Your task to perform on an android device: Show me productivity apps on the Play Store Image 0: 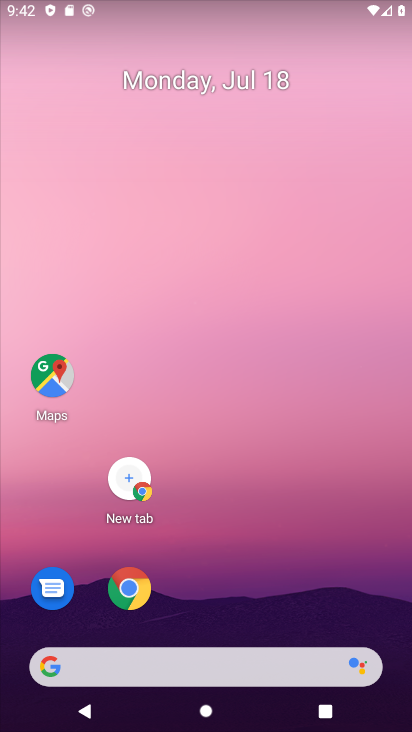
Step 0: drag from (220, 596) to (210, 2)
Your task to perform on an android device: Show me productivity apps on the Play Store Image 1: 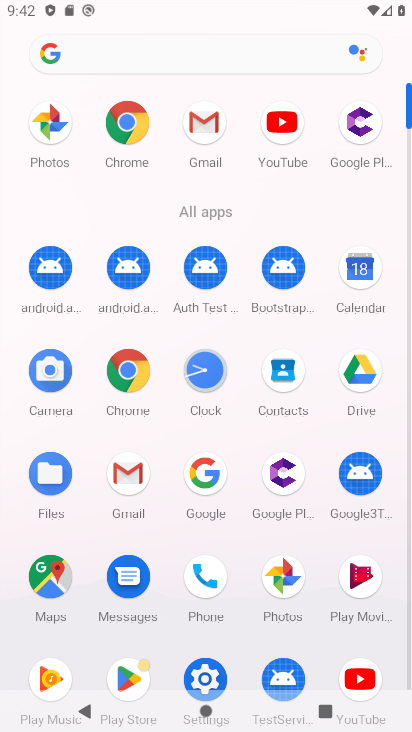
Step 1: click (135, 667)
Your task to perform on an android device: Show me productivity apps on the Play Store Image 2: 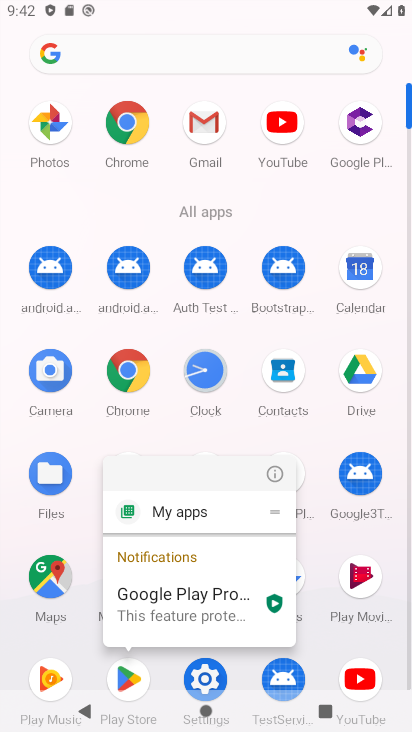
Step 2: click (132, 670)
Your task to perform on an android device: Show me productivity apps on the Play Store Image 3: 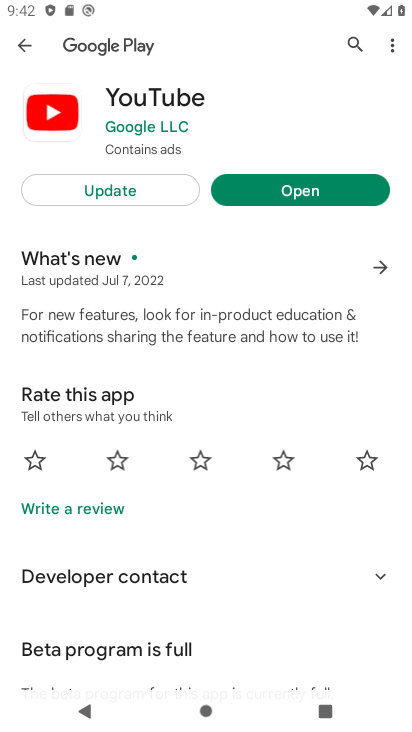
Step 3: click (25, 57)
Your task to perform on an android device: Show me productivity apps on the Play Store Image 4: 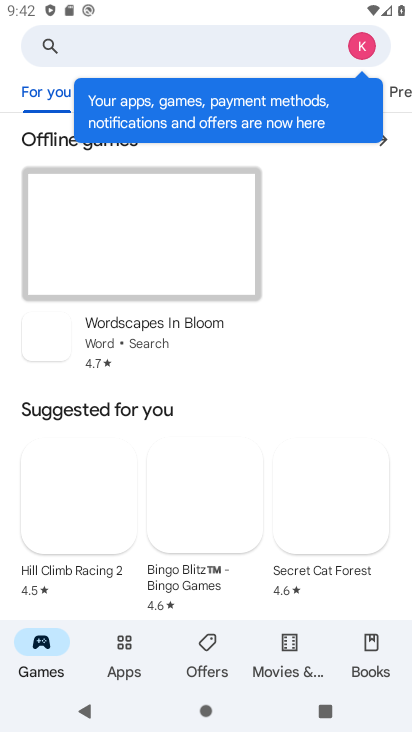
Step 4: click (126, 658)
Your task to perform on an android device: Show me productivity apps on the Play Store Image 5: 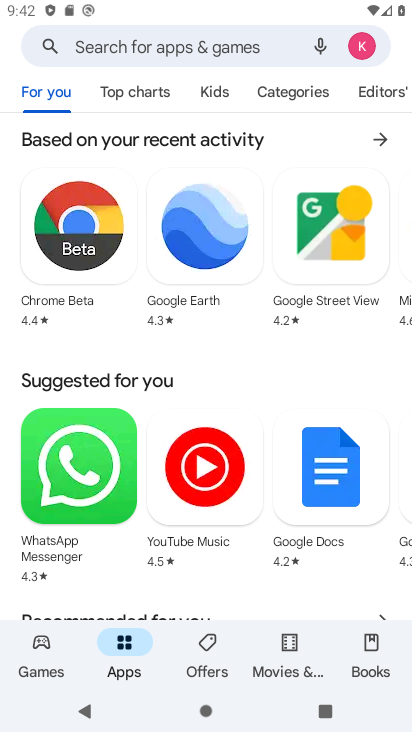
Step 5: click (285, 100)
Your task to perform on an android device: Show me productivity apps on the Play Store Image 6: 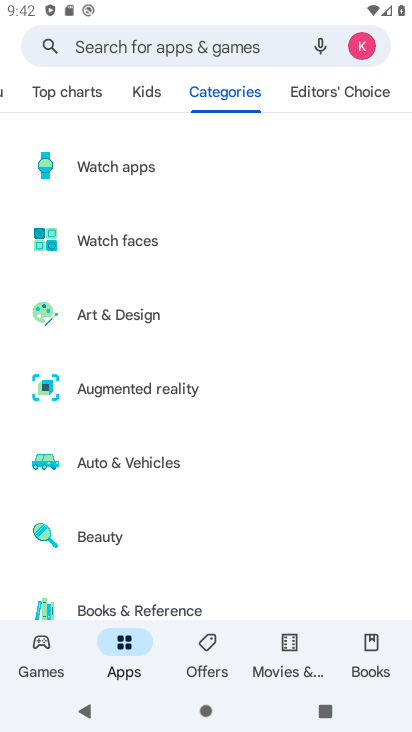
Step 6: drag from (205, 546) to (228, 68)
Your task to perform on an android device: Show me productivity apps on the Play Store Image 7: 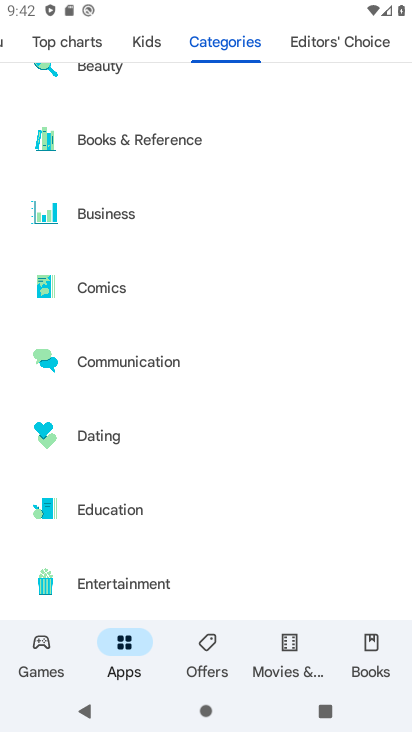
Step 7: drag from (189, 584) to (231, 72)
Your task to perform on an android device: Show me productivity apps on the Play Store Image 8: 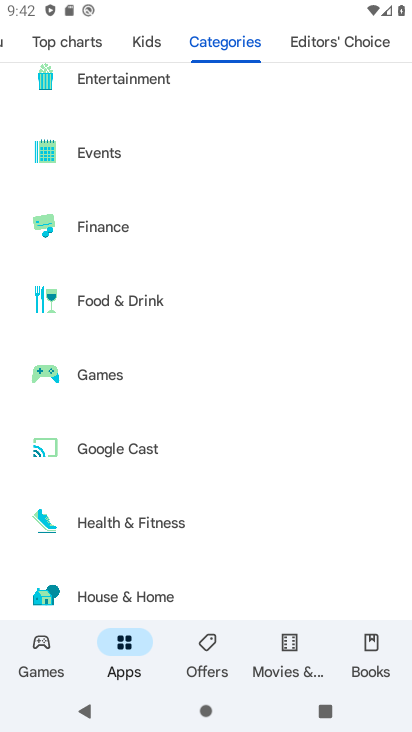
Step 8: drag from (175, 584) to (171, 79)
Your task to perform on an android device: Show me productivity apps on the Play Store Image 9: 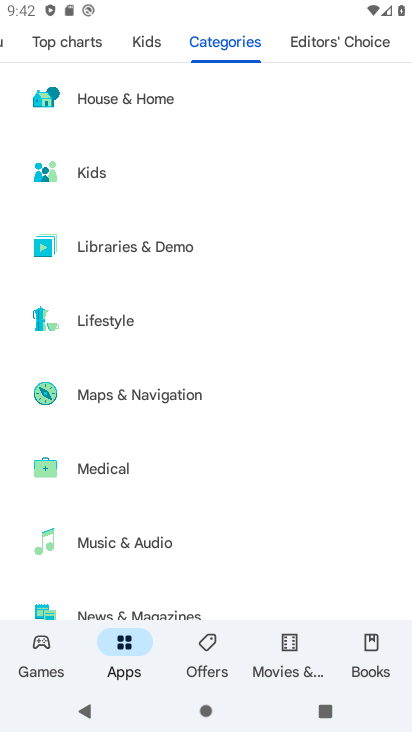
Step 9: drag from (112, 592) to (136, 101)
Your task to perform on an android device: Show me productivity apps on the Play Store Image 10: 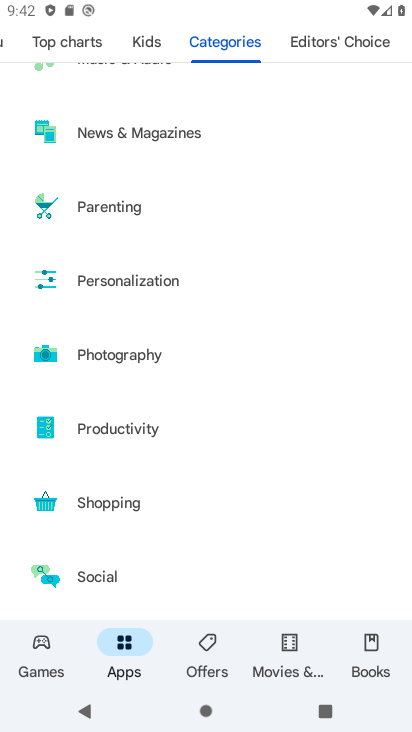
Step 10: click (105, 420)
Your task to perform on an android device: Show me productivity apps on the Play Store Image 11: 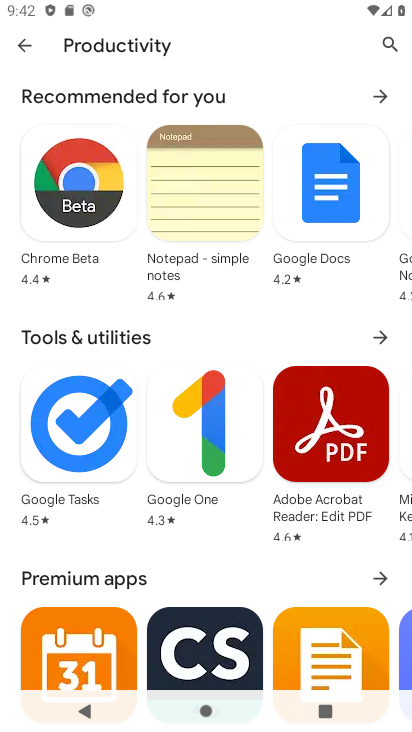
Step 11: task complete